Your task to perform on an android device: open app "Facebook Lite" (install if not already installed) Image 0: 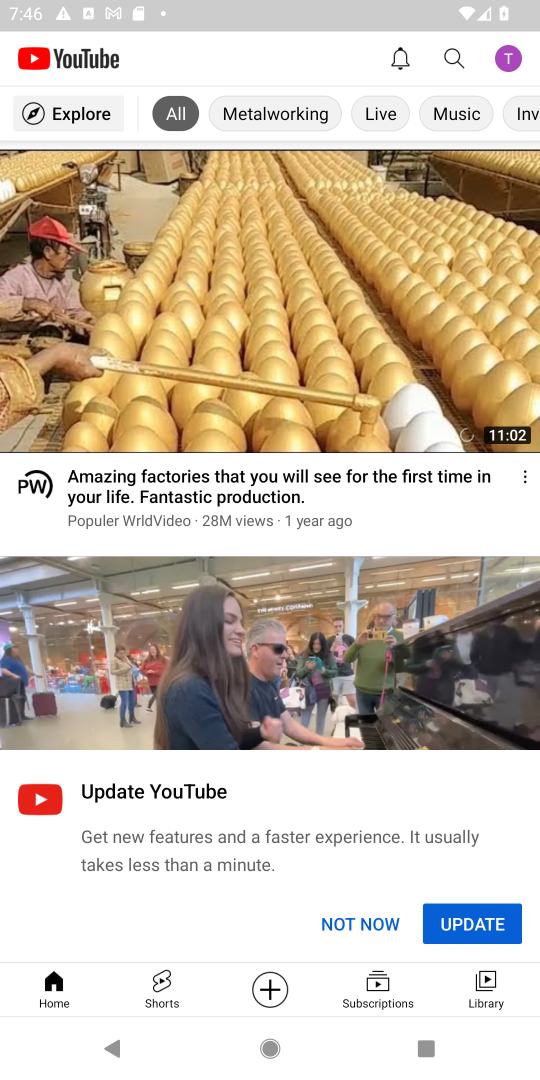
Step 0: press home button
Your task to perform on an android device: open app "Facebook Lite" (install if not already installed) Image 1: 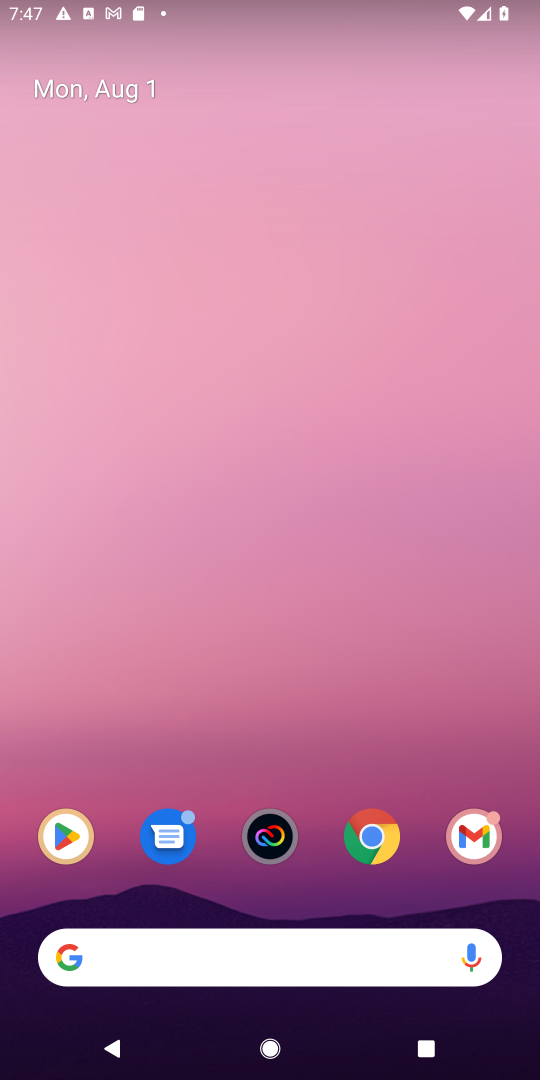
Step 1: click (70, 836)
Your task to perform on an android device: open app "Facebook Lite" (install if not already installed) Image 2: 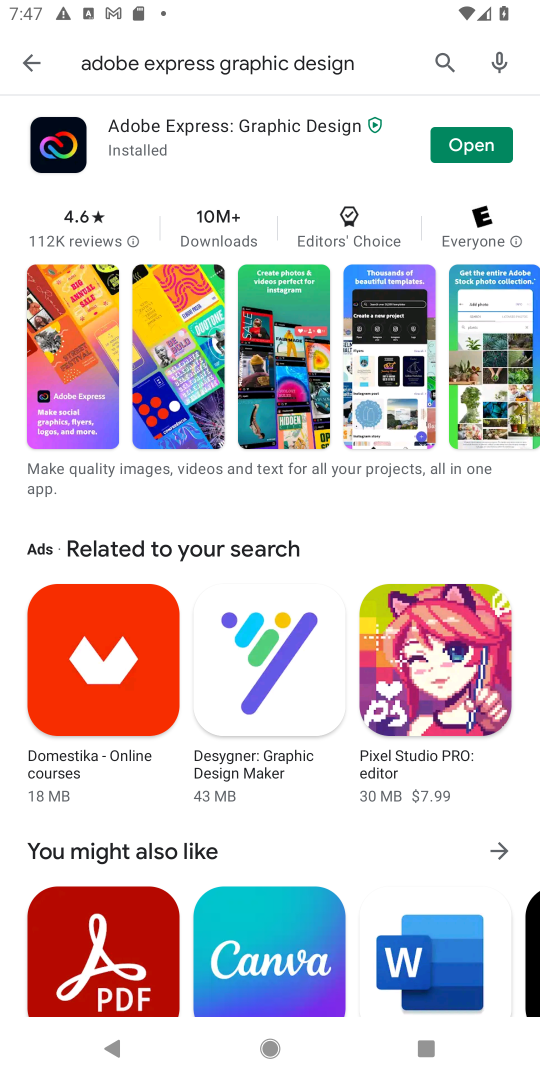
Step 2: click (441, 60)
Your task to perform on an android device: open app "Facebook Lite" (install if not already installed) Image 3: 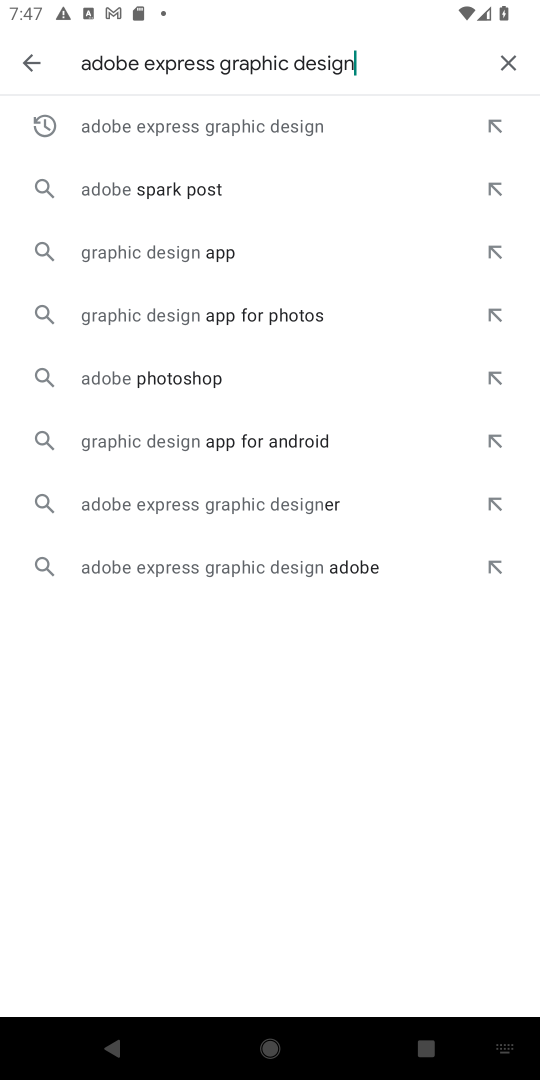
Step 3: click (506, 56)
Your task to perform on an android device: open app "Facebook Lite" (install if not already installed) Image 4: 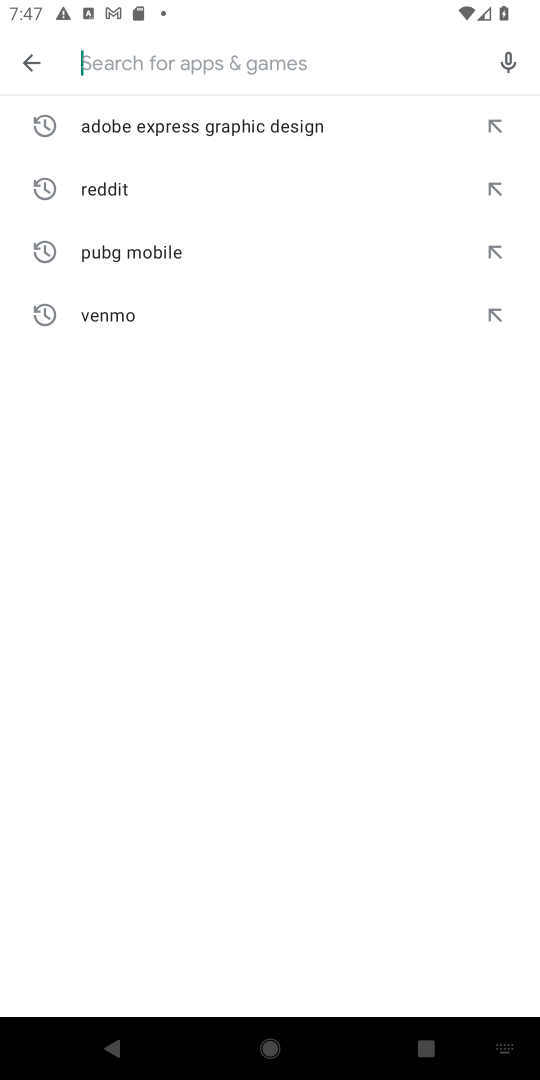
Step 4: type "Facebook Lite"
Your task to perform on an android device: open app "Facebook Lite" (install if not already installed) Image 5: 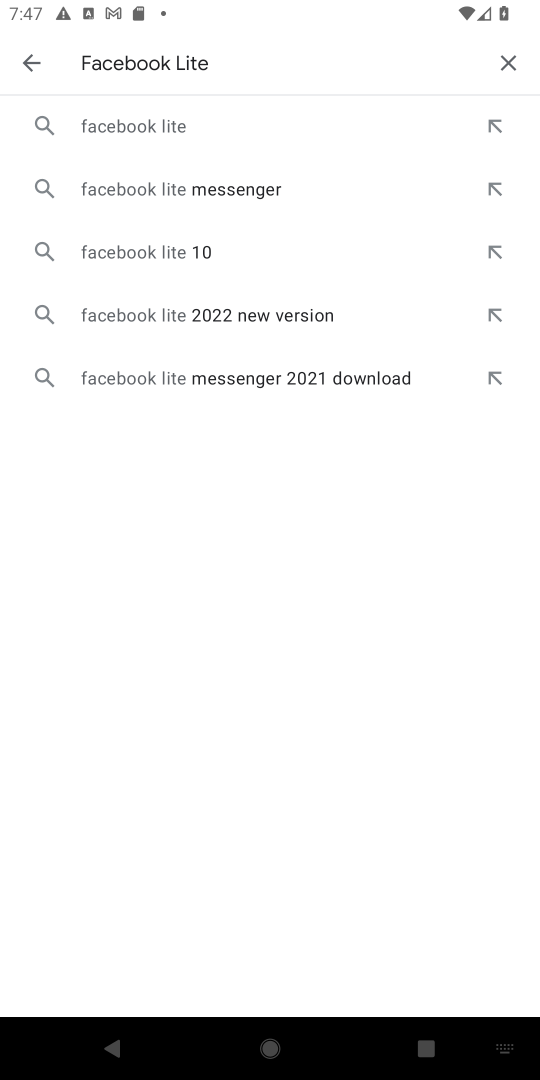
Step 5: click (181, 134)
Your task to perform on an android device: open app "Facebook Lite" (install if not already installed) Image 6: 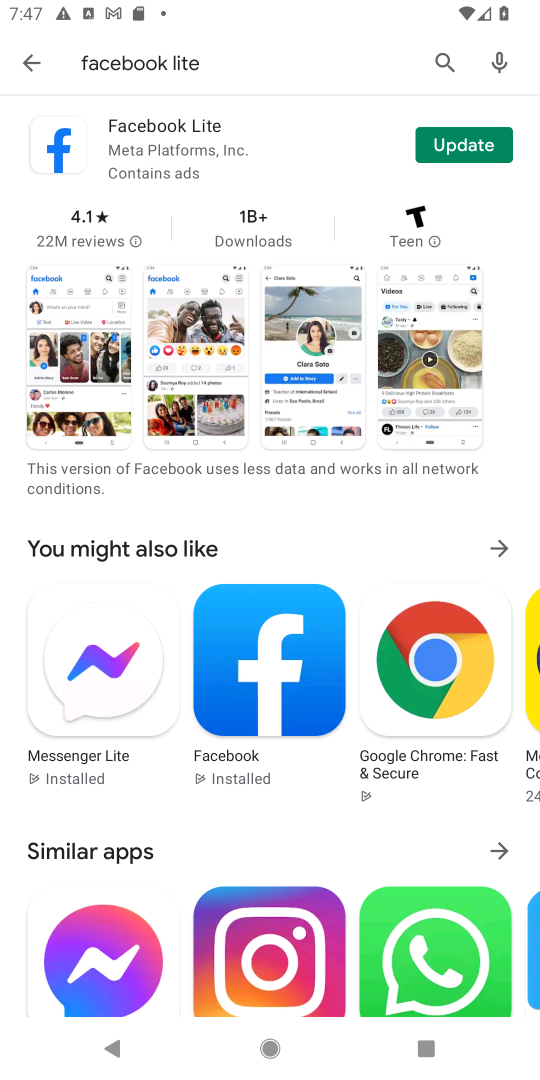
Step 6: click (158, 143)
Your task to perform on an android device: open app "Facebook Lite" (install if not already installed) Image 7: 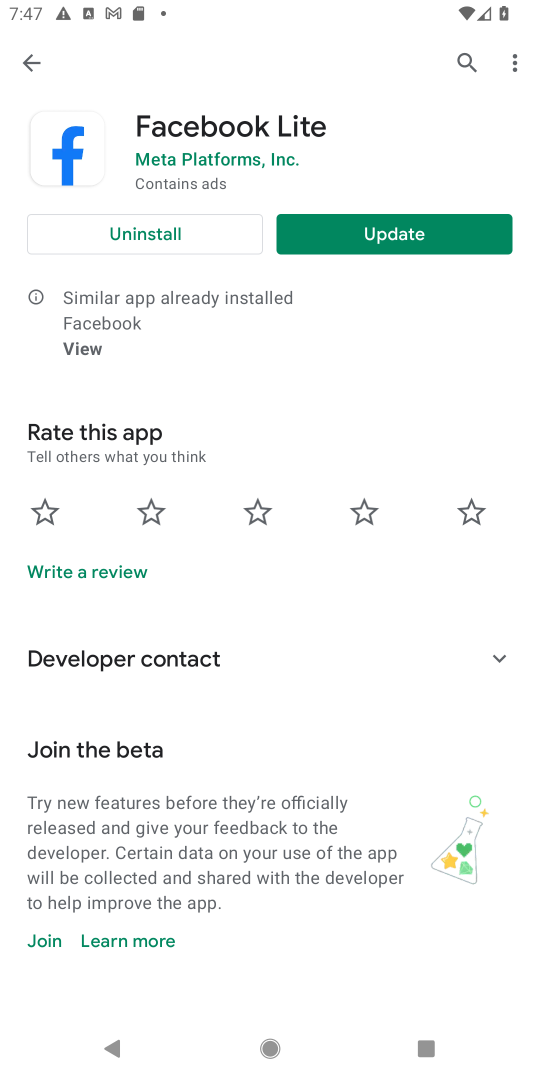
Step 7: task complete